Your task to perform on an android device: Go to display settings Image 0: 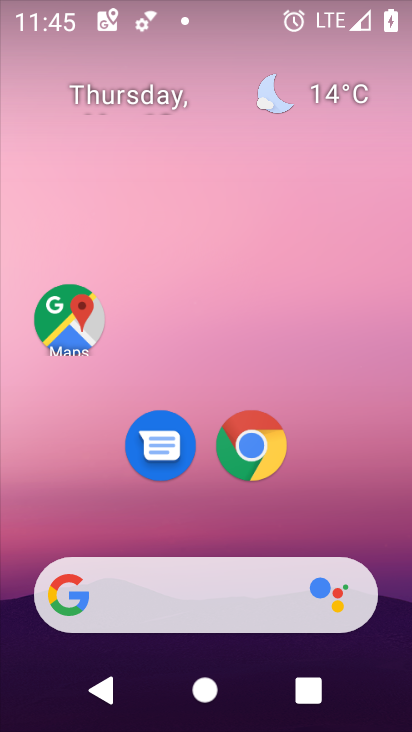
Step 0: drag from (264, 531) to (291, 105)
Your task to perform on an android device: Go to display settings Image 1: 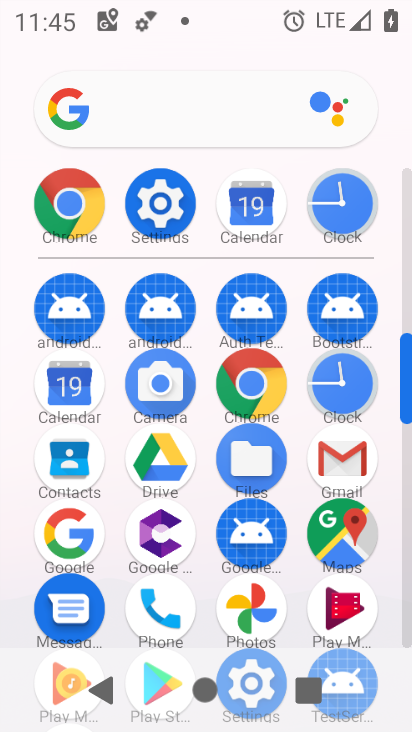
Step 1: click (159, 214)
Your task to perform on an android device: Go to display settings Image 2: 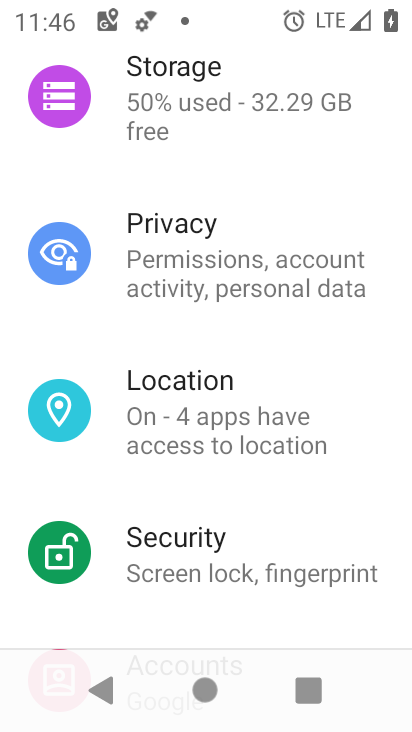
Step 2: drag from (234, 281) to (272, 601)
Your task to perform on an android device: Go to display settings Image 3: 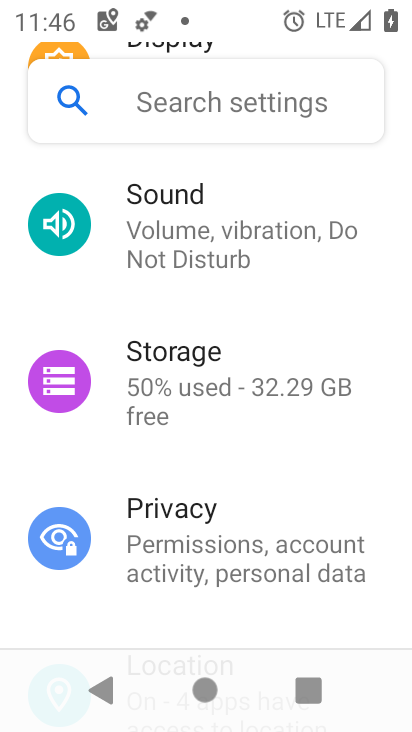
Step 3: drag from (277, 287) to (282, 660)
Your task to perform on an android device: Go to display settings Image 4: 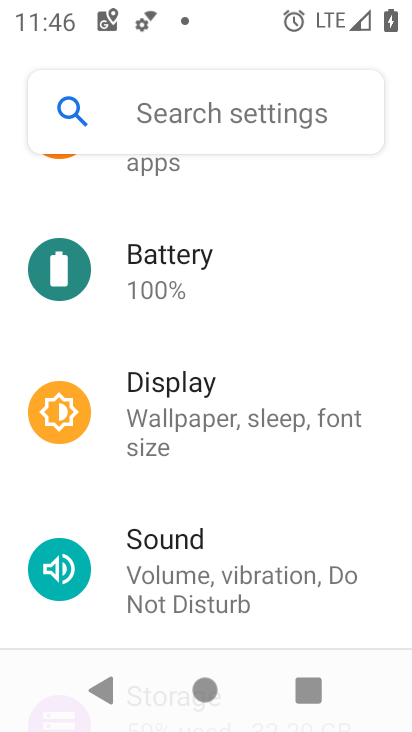
Step 4: click (226, 412)
Your task to perform on an android device: Go to display settings Image 5: 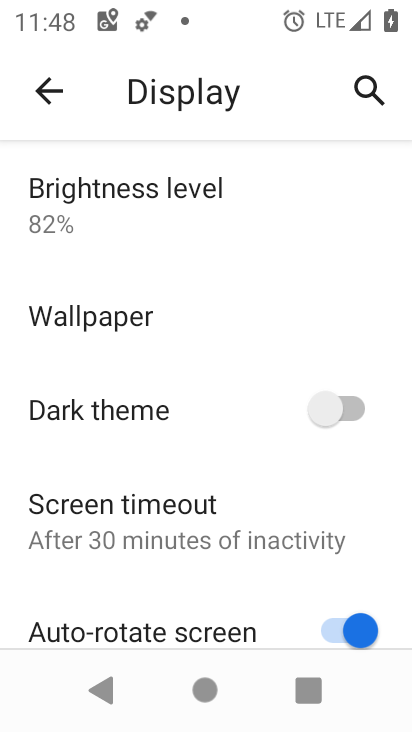
Step 5: task complete